Your task to perform on an android device: toggle airplane mode Image 0: 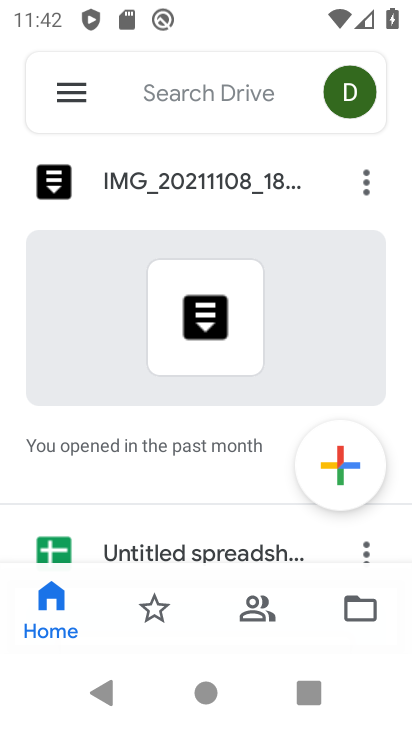
Step 0: press home button
Your task to perform on an android device: toggle airplane mode Image 1: 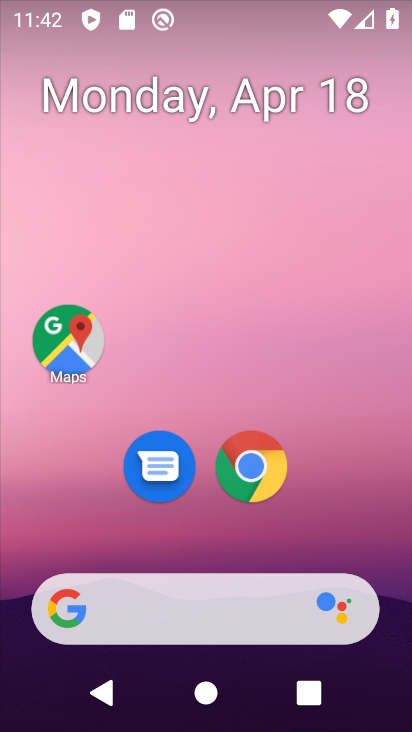
Step 1: drag from (289, 587) to (225, 404)
Your task to perform on an android device: toggle airplane mode Image 2: 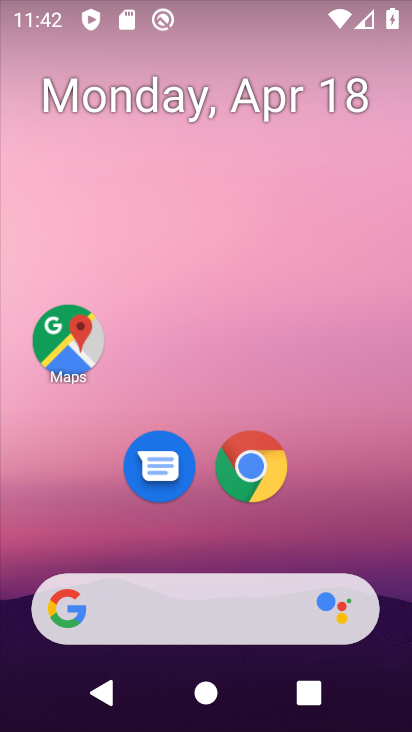
Step 2: drag from (238, 574) to (116, 206)
Your task to perform on an android device: toggle airplane mode Image 3: 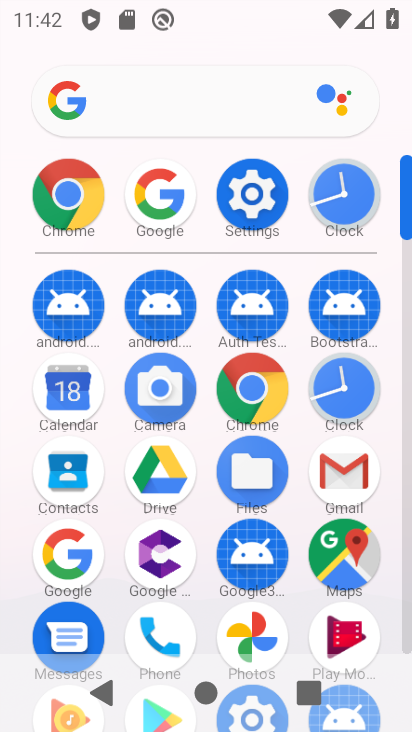
Step 3: click (248, 199)
Your task to perform on an android device: toggle airplane mode Image 4: 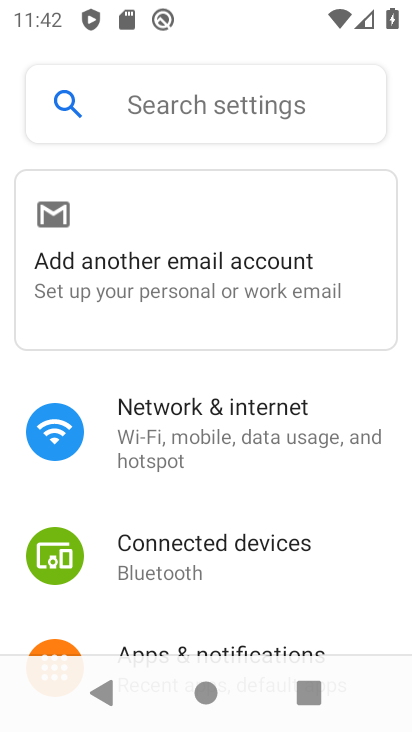
Step 4: click (244, 433)
Your task to perform on an android device: toggle airplane mode Image 5: 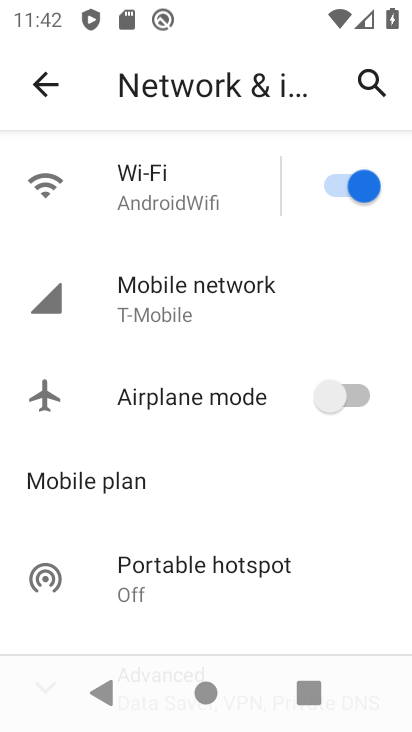
Step 5: click (308, 403)
Your task to perform on an android device: toggle airplane mode Image 6: 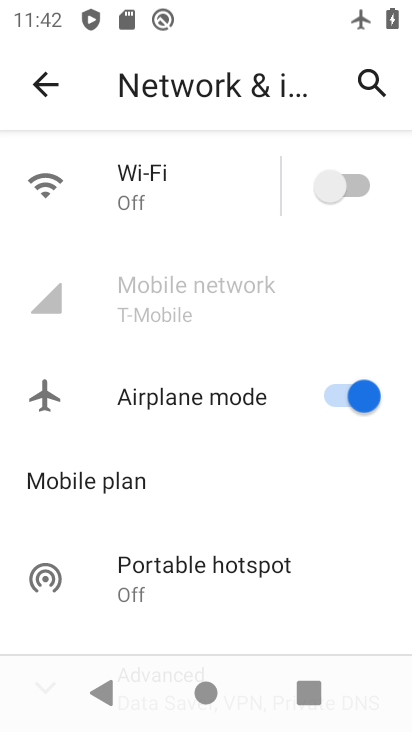
Step 6: task complete